Your task to perform on an android device: Go to settings Image 0: 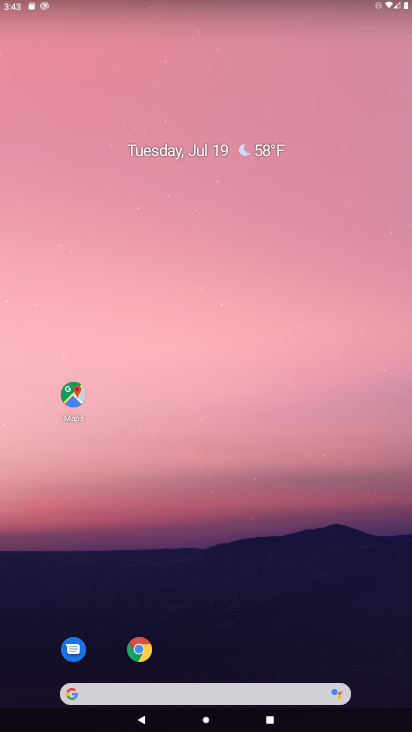
Step 0: drag from (232, 725) to (239, 141)
Your task to perform on an android device: Go to settings Image 1: 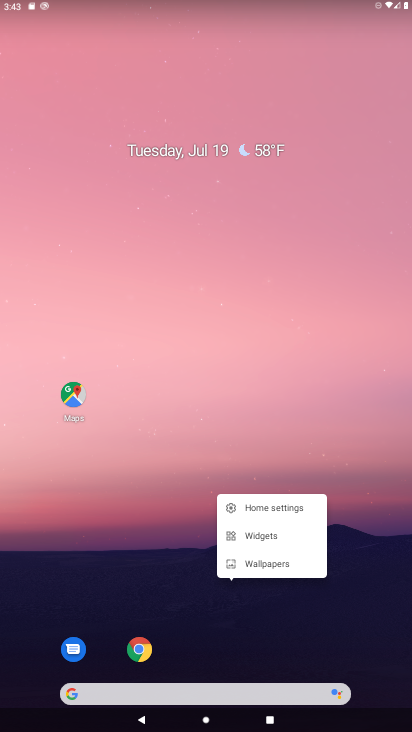
Step 1: click (252, 395)
Your task to perform on an android device: Go to settings Image 2: 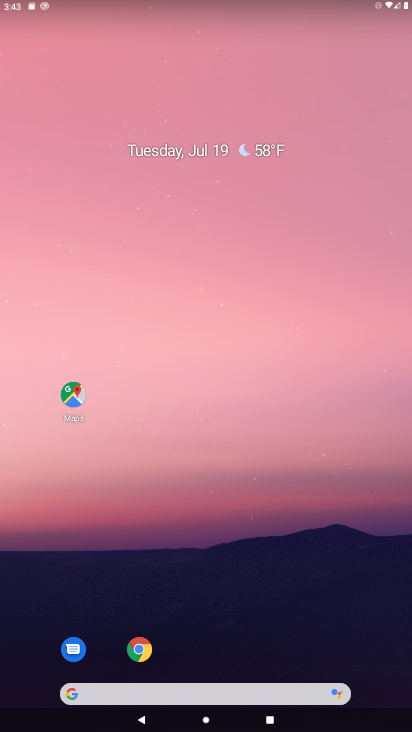
Step 2: drag from (239, 665) to (251, 241)
Your task to perform on an android device: Go to settings Image 3: 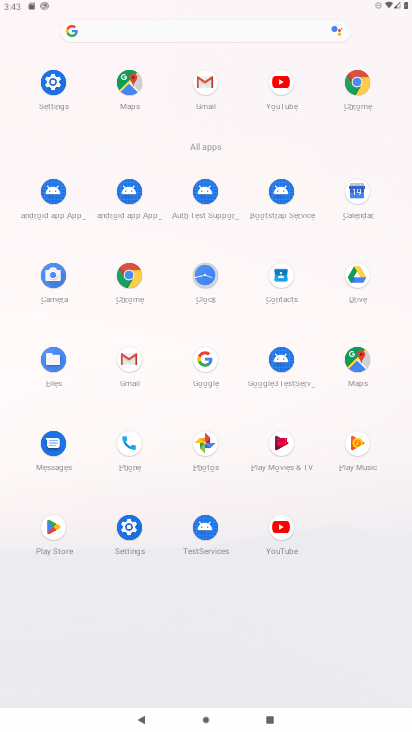
Step 3: click (50, 79)
Your task to perform on an android device: Go to settings Image 4: 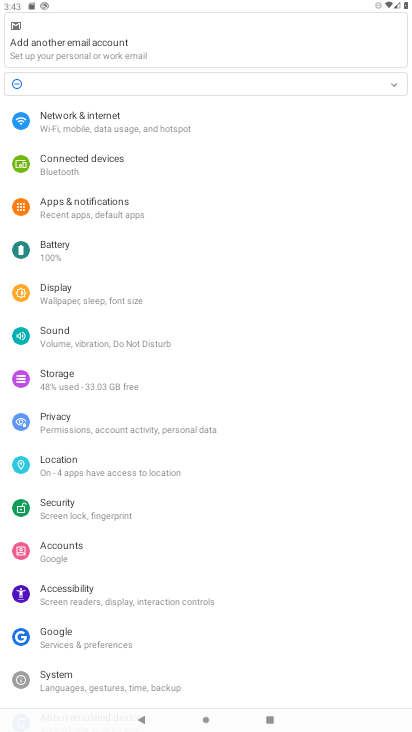
Step 4: task complete